Your task to perform on an android device: Show me productivity apps on the Play Store Image 0: 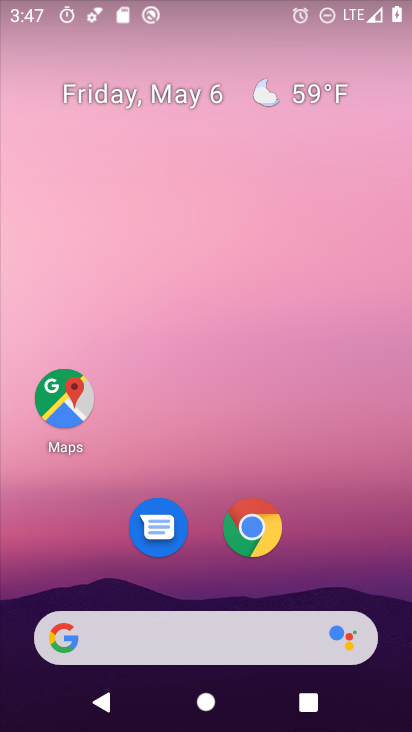
Step 0: drag from (333, 509) to (281, 33)
Your task to perform on an android device: Show me productivity apps on the Play Store Image 1: 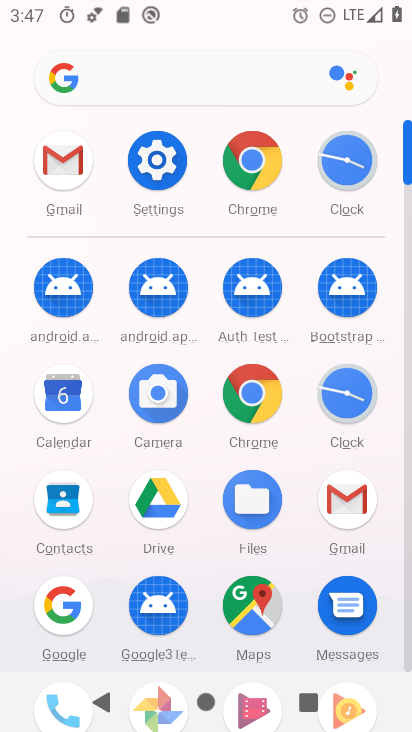
Step 1: drag from (300, 585) to (331, 75)
Your task to perform on an android device: Show me productivity apps on the Play Store Image 2: 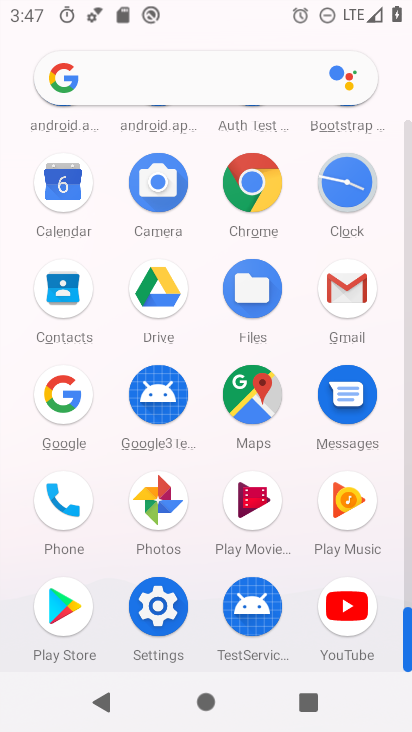
Step 2: click (63, 597)
Your task to perform on an android device: Show me productivity apps on the Play Store Image 3: 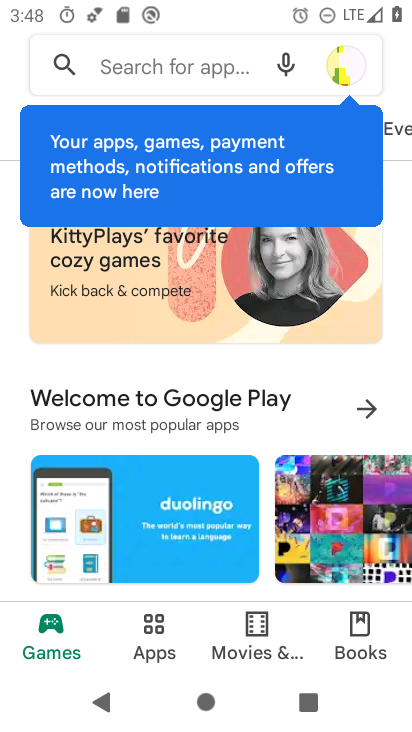
Step 3: click (143, 640)
Your task to perform on an android device: Show me productivity apps on the Play Store Image 4: 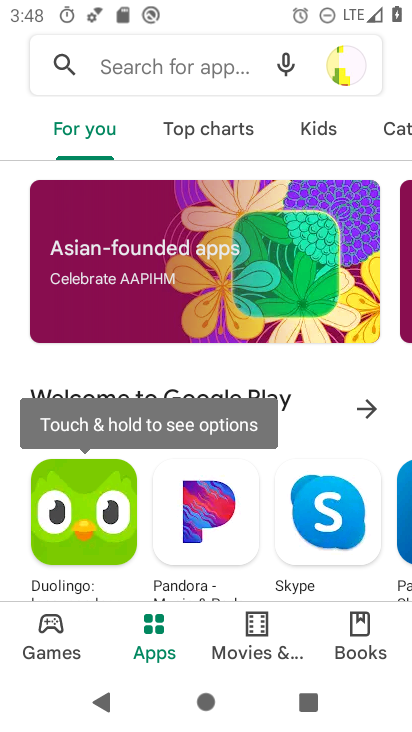
Step 4: task complete